Your task to perform on an android device: empty trash in the gmail app Image 0: 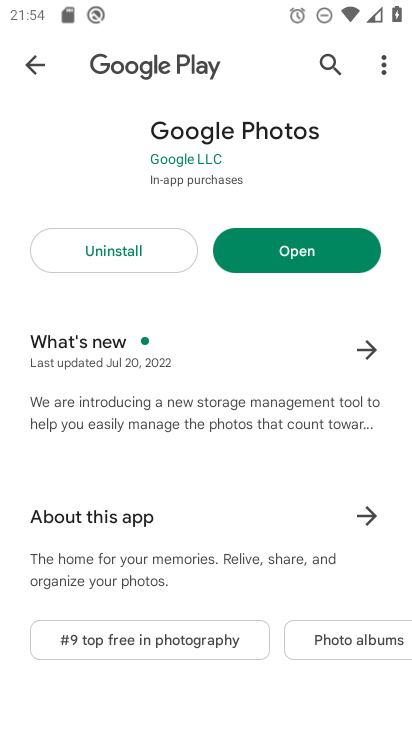
Step 0: click (64, 460)
Your task to perform on an android device: empty trash in the gmail app Image 1: 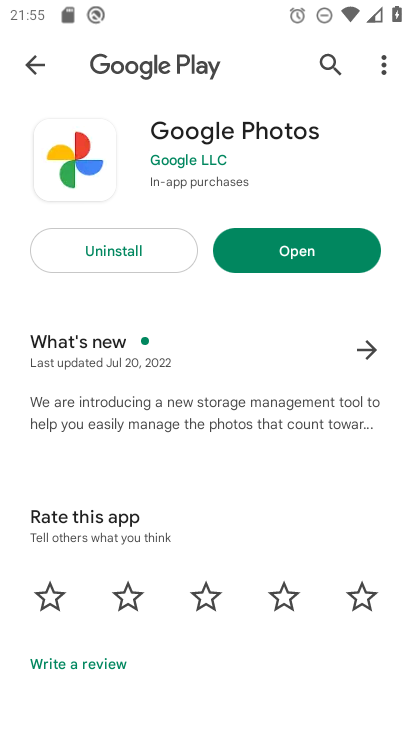
Step 1: press home button
Your task to perform on an android device: empty trash in the gmail app Image 2: 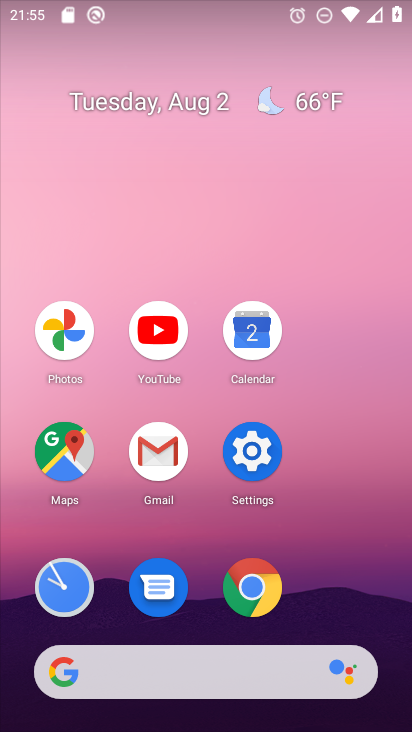
Step 2: click (145, 448)
Your task to perform on an android device: empty trash in the gmail app Image 3: 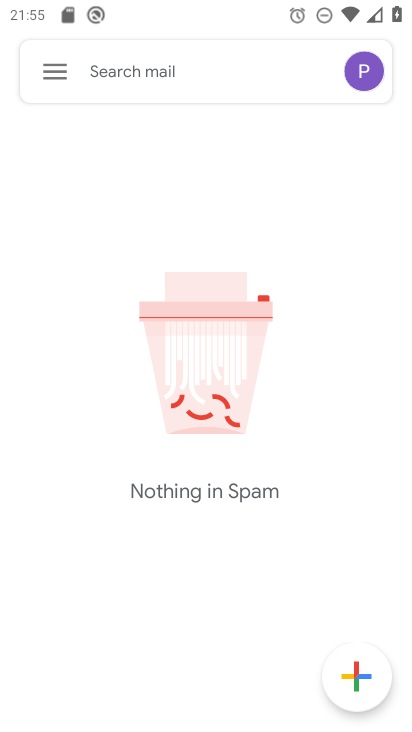
Step 3: click (56, 61)
Your task to perform on an android device: empty trash in the gmail app Image 4: 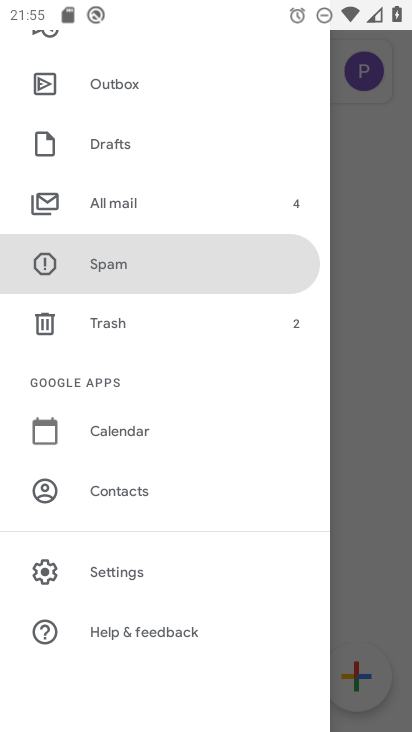
Step 4: click (107, 318)
Your task to perform on an android device: empty trash in the gmail app Image 5: 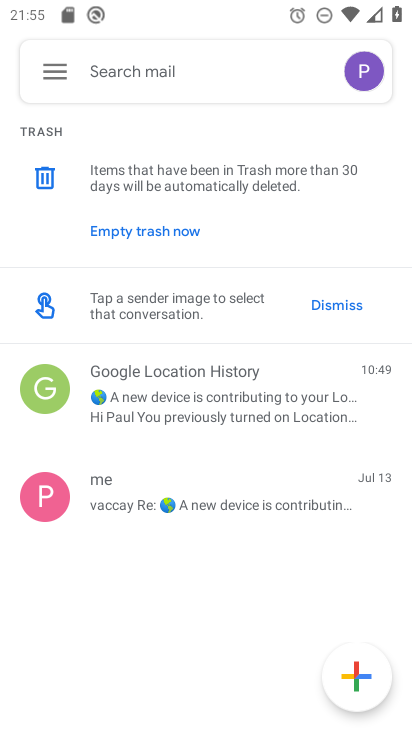
Step 5: click (119, 231)
Your task to perform on an android device: empty trash in the gmail app Image 6: 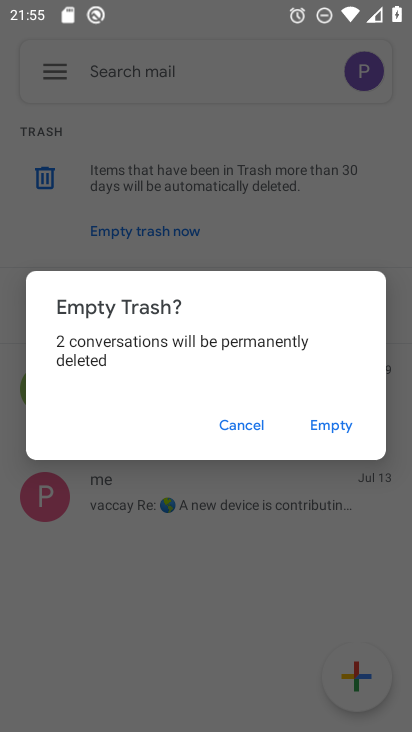
Step 6: click (333, 418)
Your task to perform on an android device: empty trash in the gmail app Image 7: 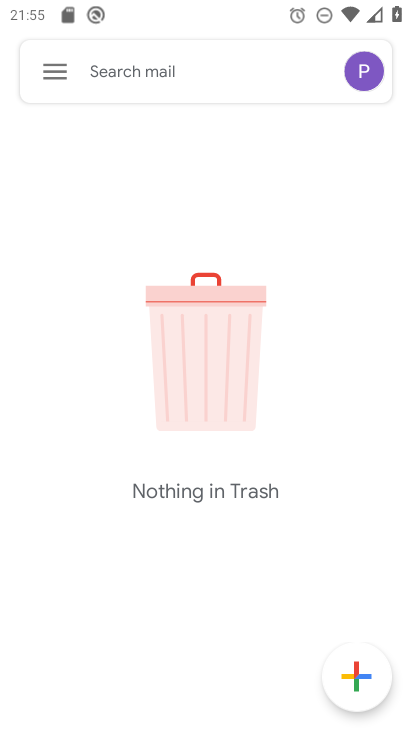
Step 7: task complete